Your task to perform on an android device: open app "NewsBreak: Local News & Alerts" (install if not already installed) Image 0: 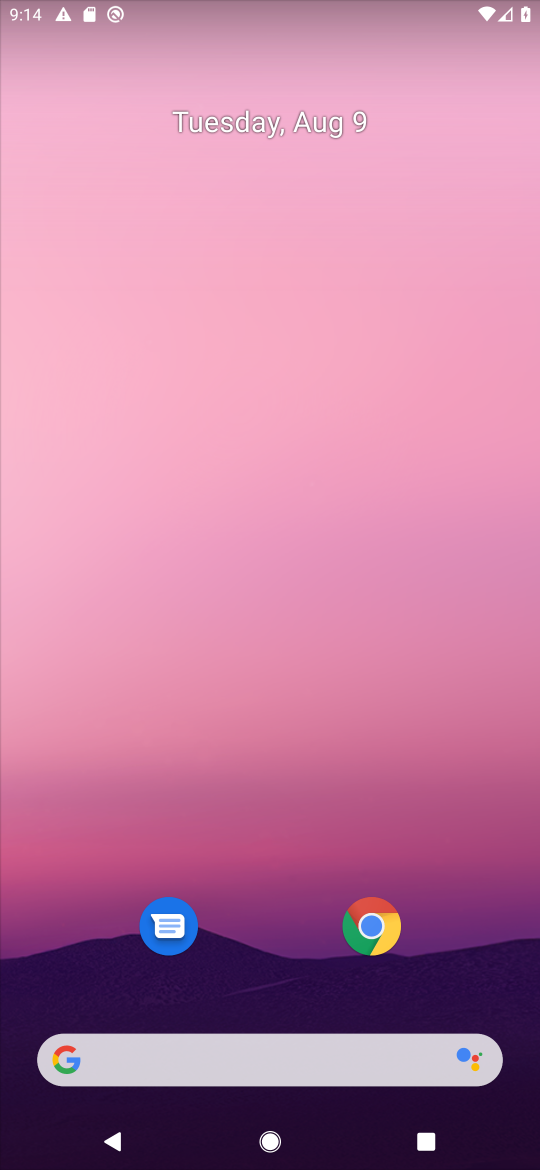
Step 0: drag from (245, 1017) to (277, 737)
Your task to perform on an android device: open app "NewsBreak: Local News & Alerts" (install if not already installed) Image 1: 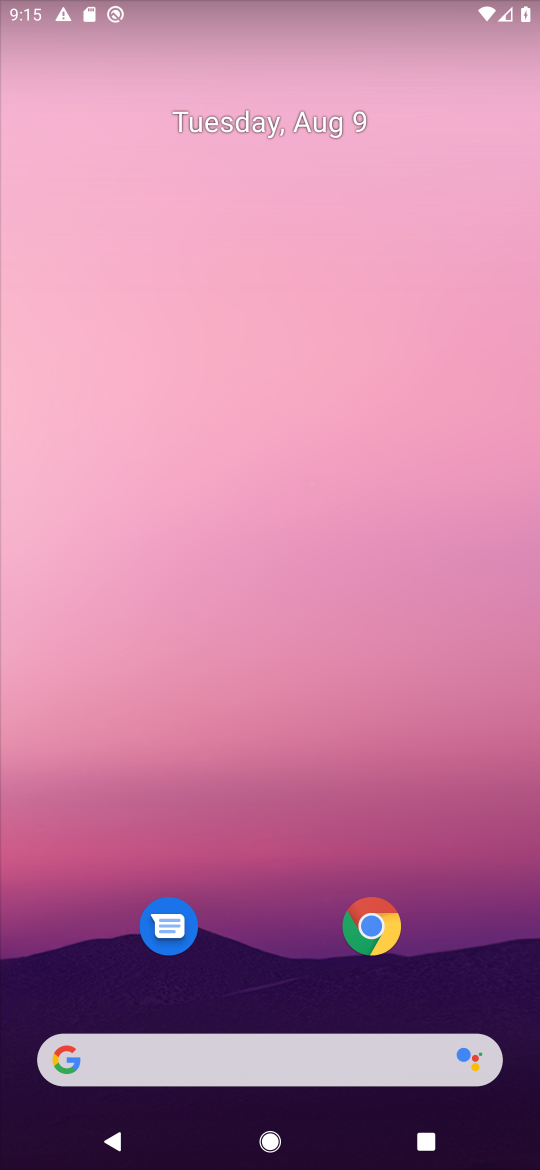
Step 1: drag from (270, 988) to (297, 618)
Your task to perform on an android device: open app "NewsBreak: Local News & Alerts" (install if not already installed) Image 2: 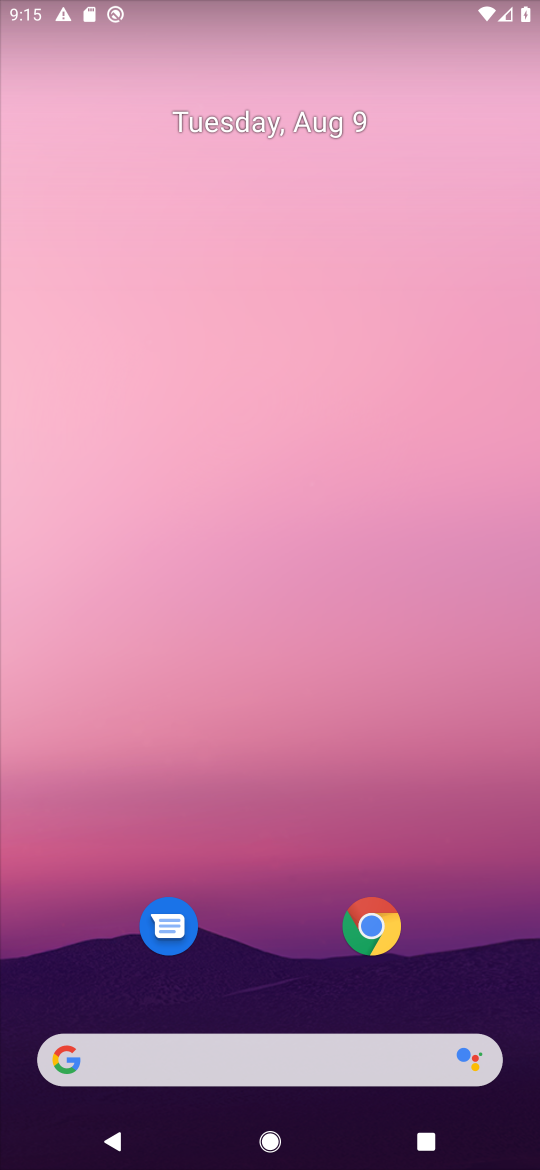
Step 2: drag from (257, 1030) to (313, 222)
Your task to perform on an android device: open app "NewsBreak: Local News & Alerts" (install if not already installed) Image 3: 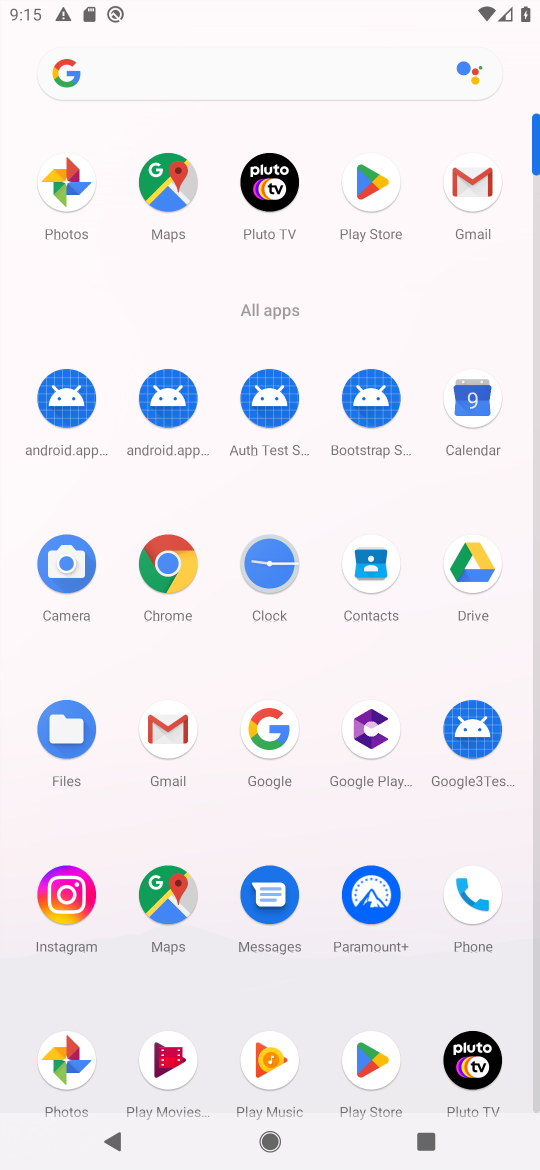
Step 3: click (369, 1061)
Your task to perform on an android device: open app "NewsBreak: Local News & Alerts" (install if not already installed) Image 4: 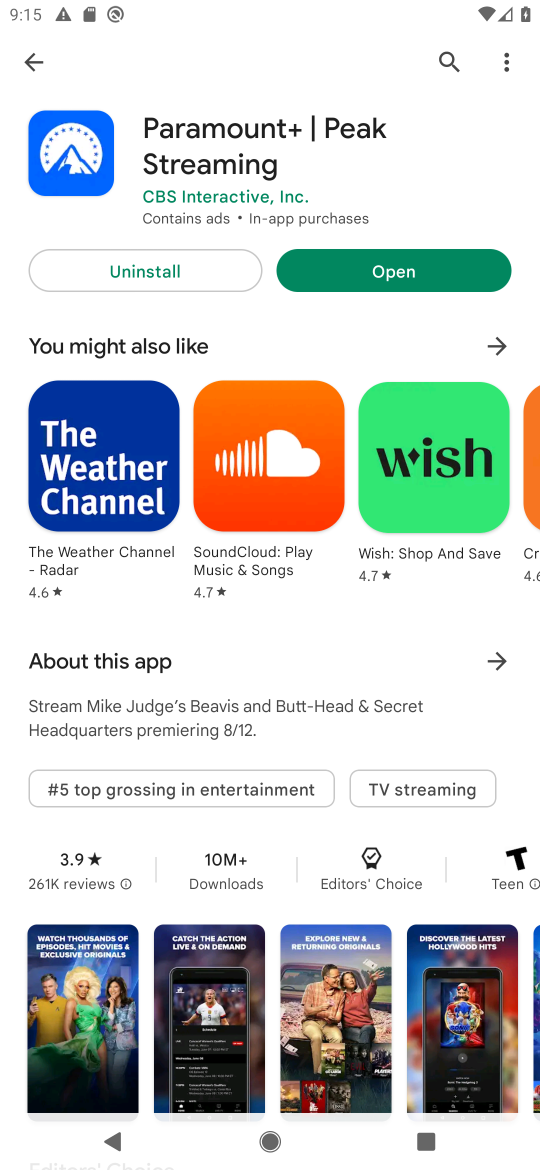
Step 4: click (27, 51)
Your task to perform on an android device: open app "NewsBreak: Local News & Alerts" (install if not already installed) Image 5: 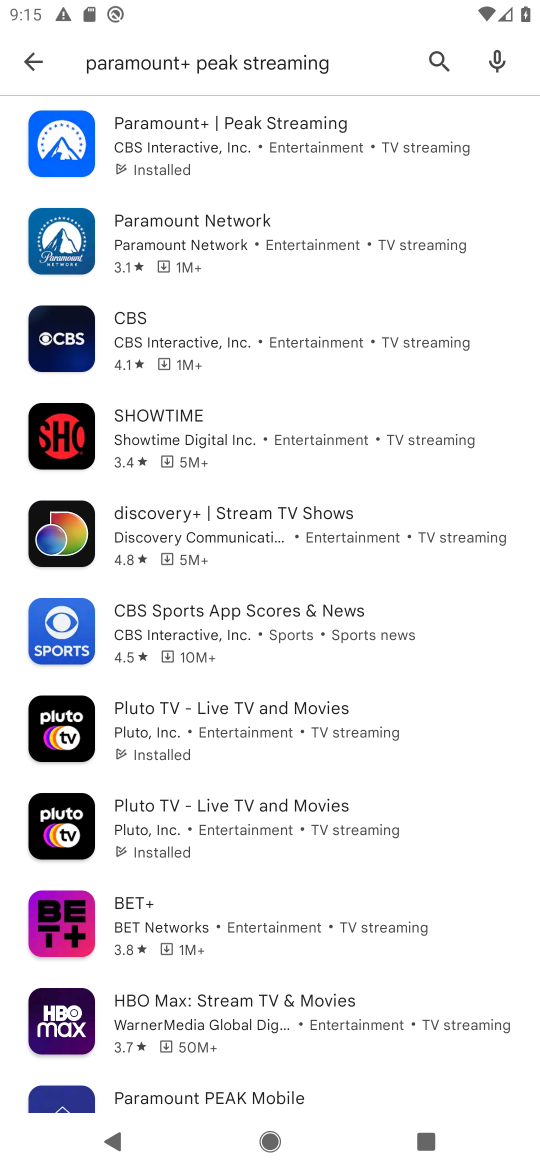
Step 5: click (158, 69)
Your task to perform on an android device: open app "NewsBreak: Local News & Alerts" (install if not already installed) Image 6: 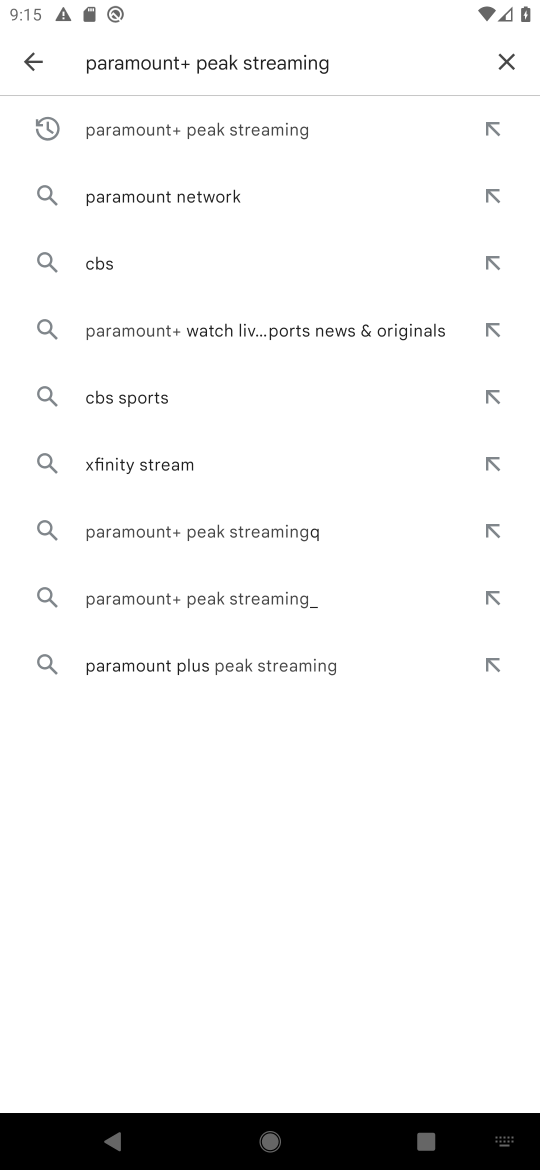
Step 6: click (505, 46)
Your task to perform on an android device: open app "NewsBreak: Local News & Alerts" (install if not already installed) Image 7: 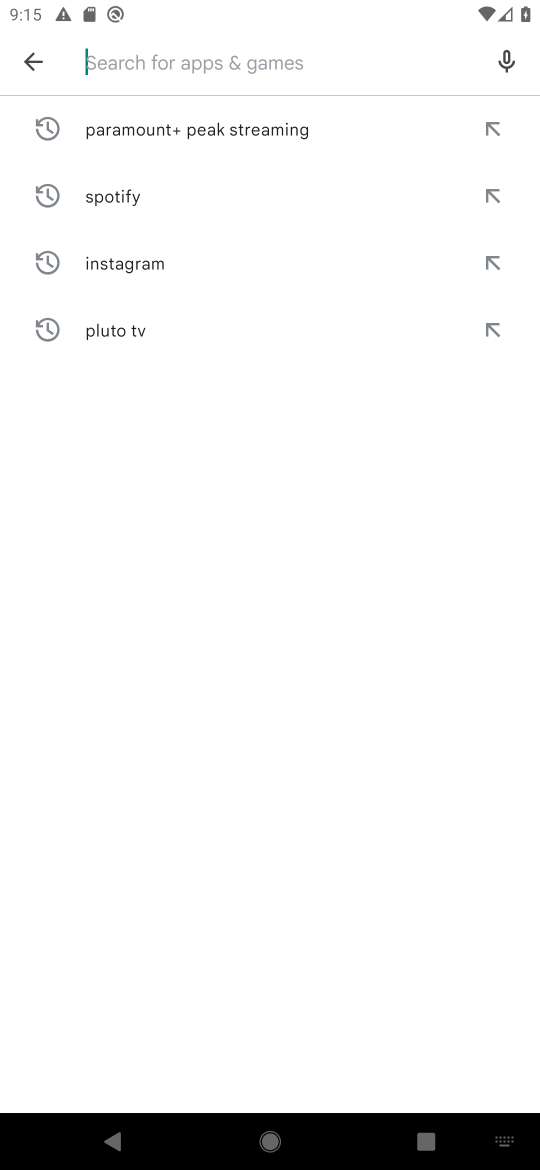
Step 7: type "NewsBreak"
Your task to perform on an android device: open app "NewsBreak: Local News & Alerts" (install if not already installed) Image 8: 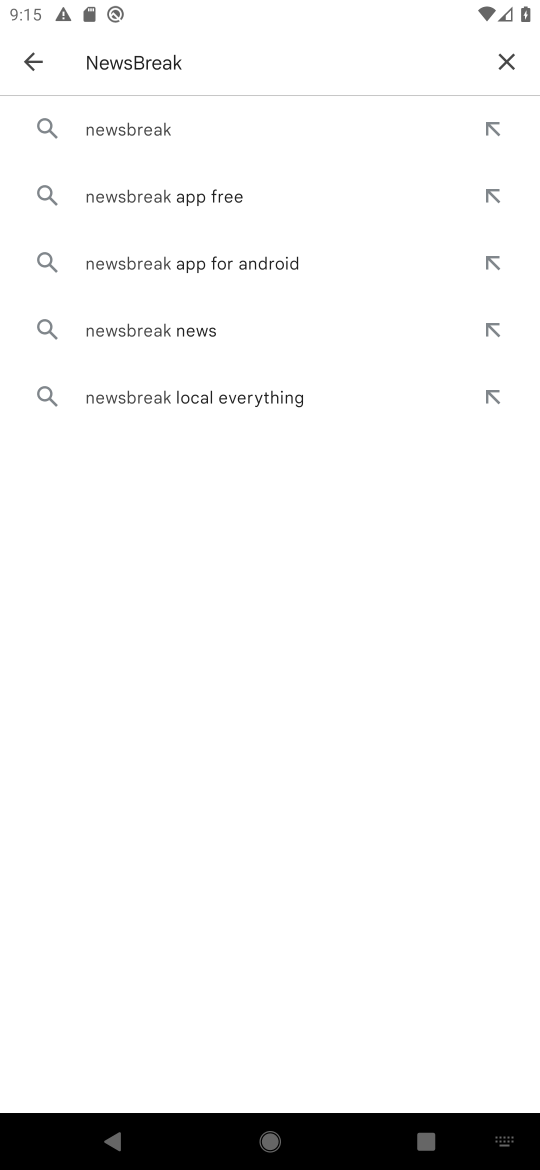
Step 8: click (167, 123)
Your task to perform on an android device: open app "NewsBreak: Local News & Alerts" (install if not already installed) Image 9: 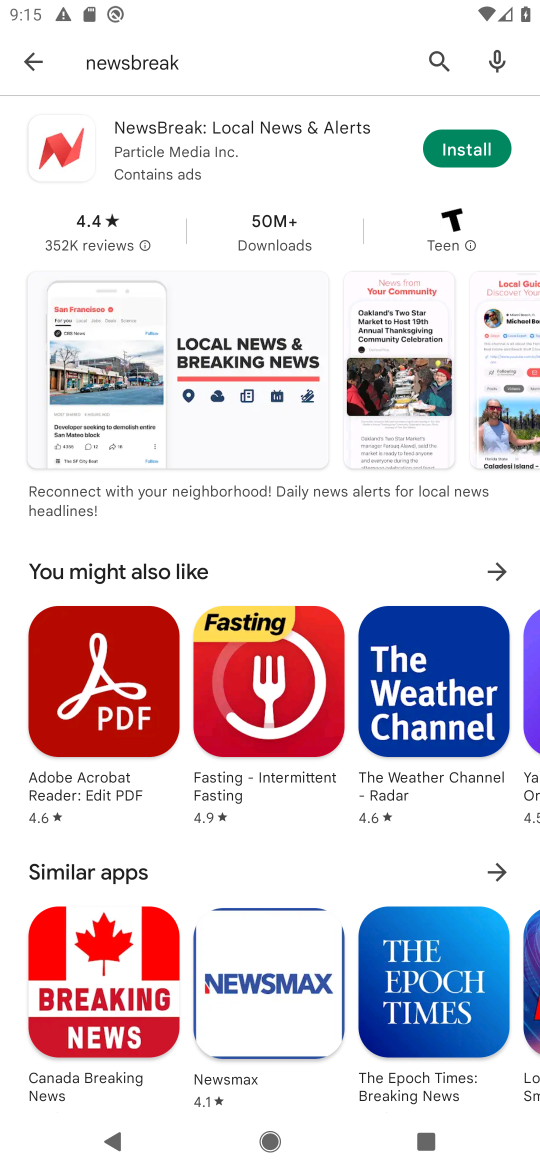
Step 9: click (455, 145)
Your task to perform on an android device: open app "NewsBreak: Local News & Alerts" (install if not already installed) Image 10: 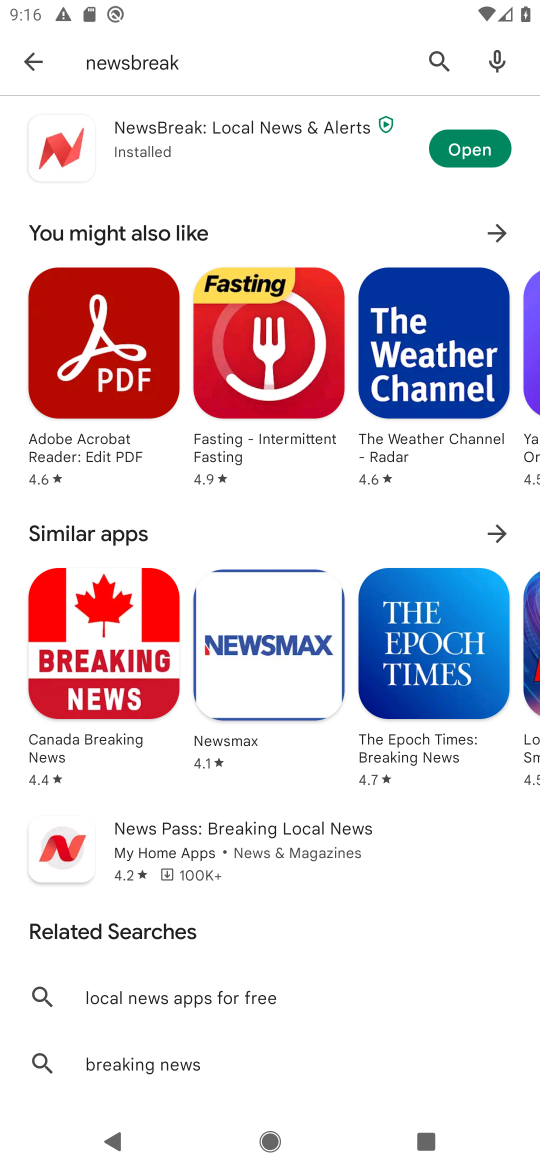
Step 10: click (463, 156)
Your task to perform on an android device: open app "NewsBreak: Local News & Alerts" (install if not already installed) Image 11: 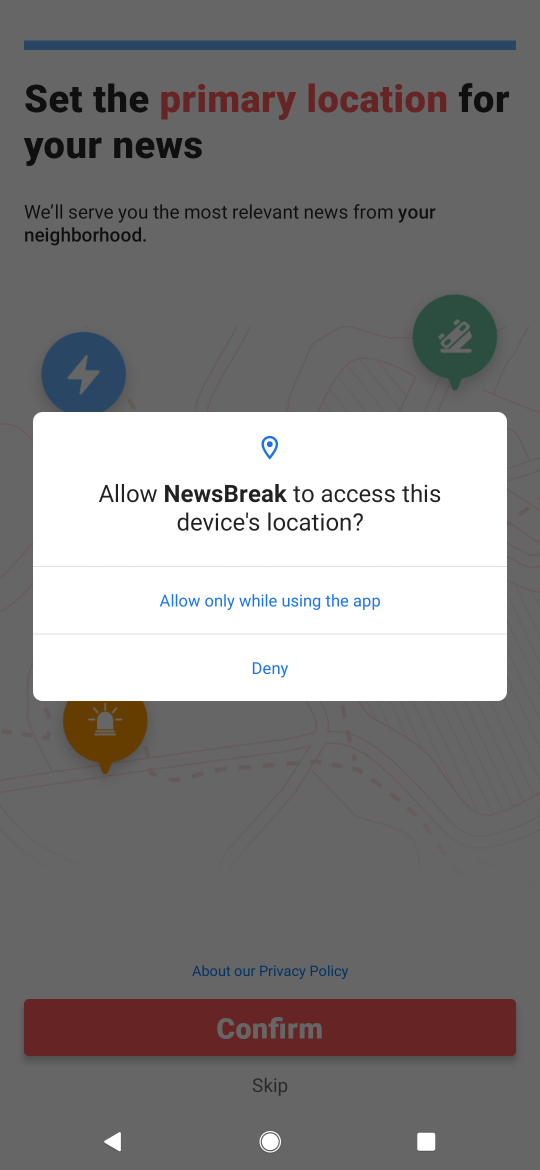
Step 11: click (301, 604)
Your task to perform on an android device: open app "NewsBreak: Local News & Alerts" (install if not already installed) Image 12: 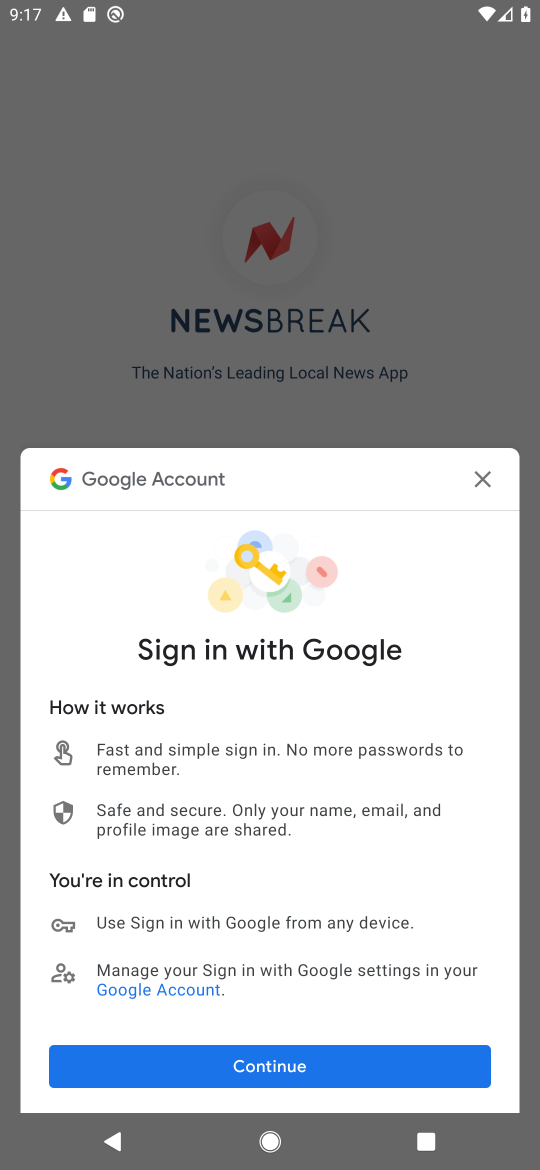
Step 12: click (304, 1065)
Your task to perform on an android device: open app "NewsBreak: Local News & Alerts" (install if not already installed) Image 13: 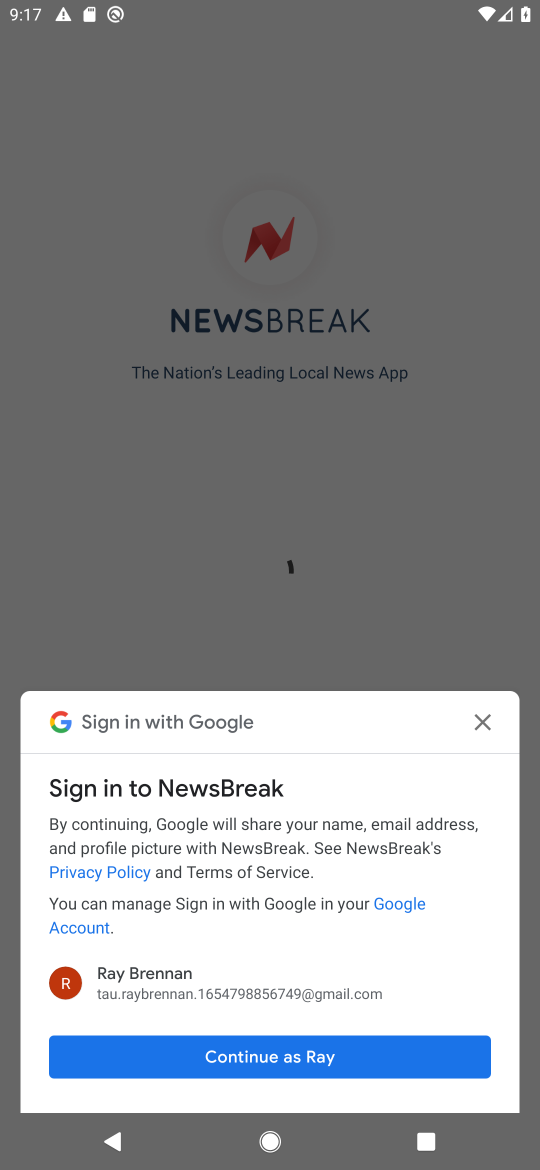
Step 13: click (304, 1065)
Your task to perform on an android device: open app "NewsBreak: Local News & Alerts" (install if not already installed) Image 14: 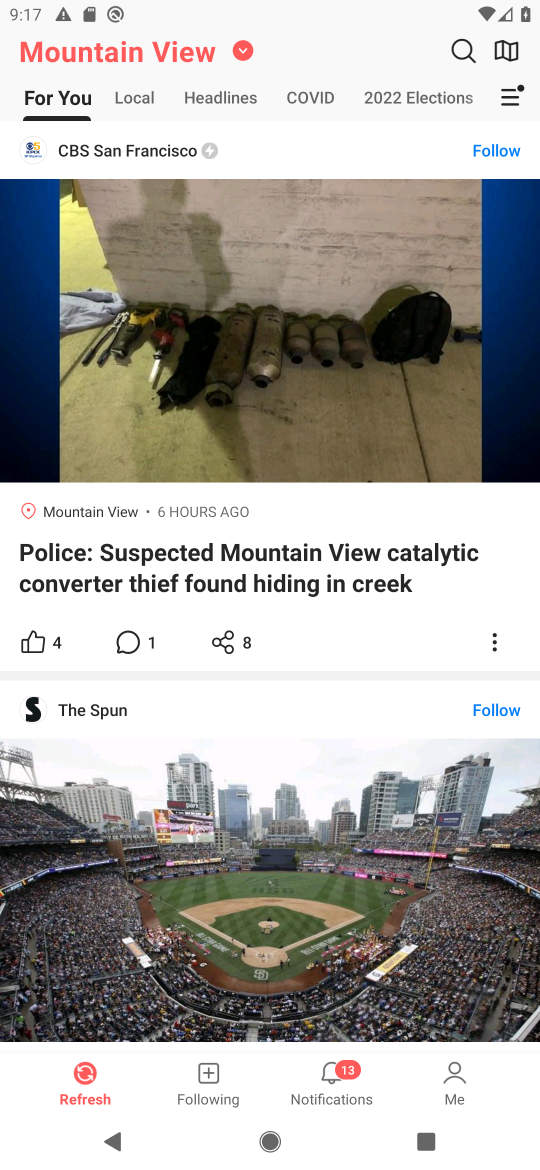
Step 14: task complete